Your task to perform on an android device: Go to Amazon Image 0: 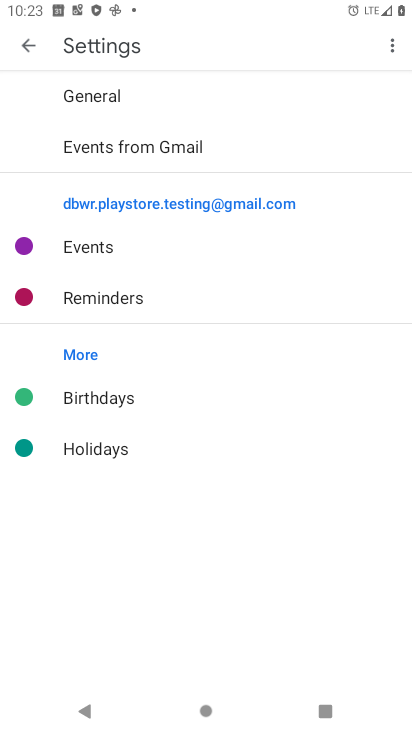
Step 0: press home button
Your task to perform on an android device: Go to Amazon Image 1: 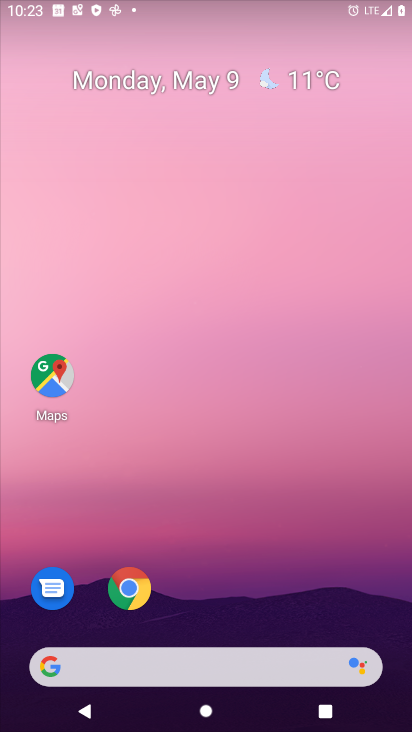
Step 1: drag from (373, 643) to (149, 46)
Your task to perform on an android device: Go to Amazon Image 2: 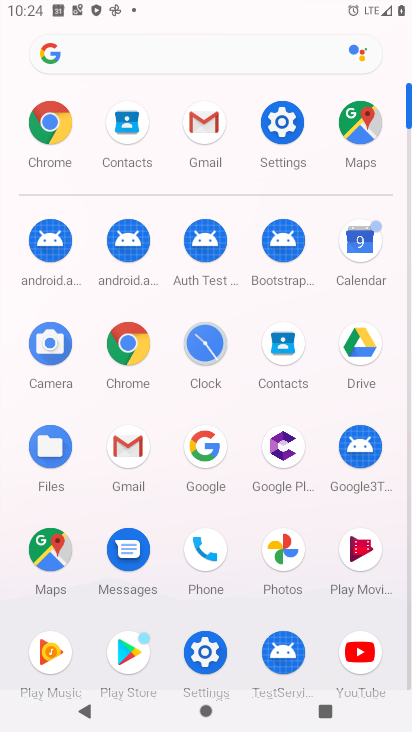
Step 2: click (136, 339)
Your task to perform on an android device: Go to Amazon Image 3: 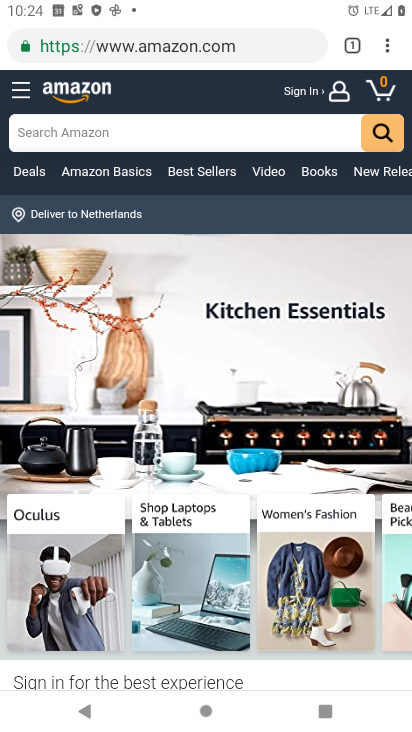
Step 3: task complete